Your task to perform on an android device: Open the calendar app, open the side menu, and click the "Day" option Image 0: 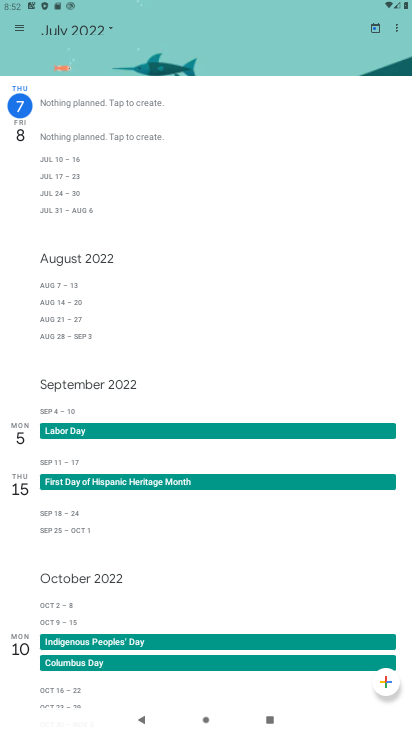
Step 0: click (16, 24)
Your task to perform on an android device: Open the calendar app, open the side menu, and click the "Day" option Image 1: 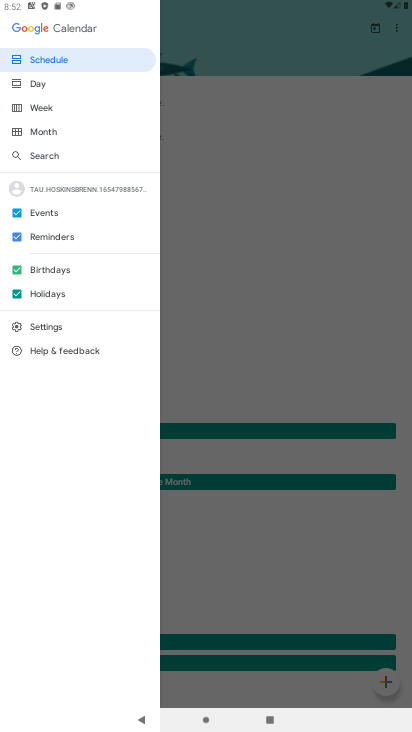
Step 1: click (37, 84)
Your task to perform on an android device: Open the calendar app, open the side menu, and click the "Day" option Image 2: 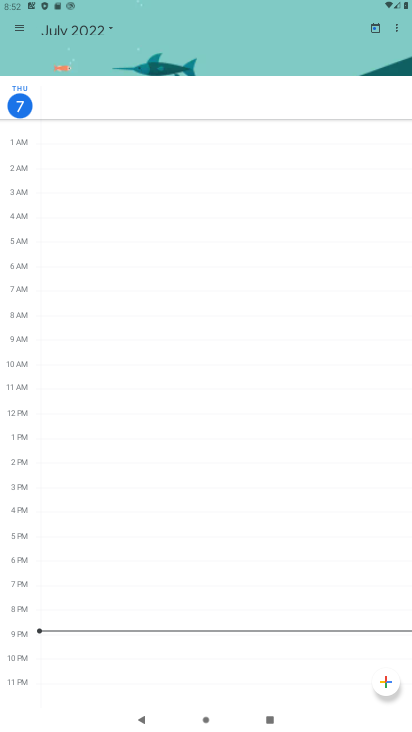
Step 2: task complete